Your task to perform on an android device: Open Google Maps Image 0: 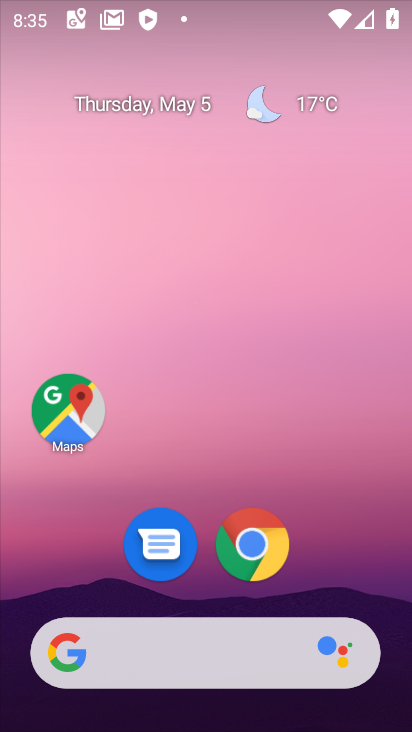
Step 0: drag from (395, 627) to (282, 66)
Your task to perform on an android device: Open Google Maps Image 1: 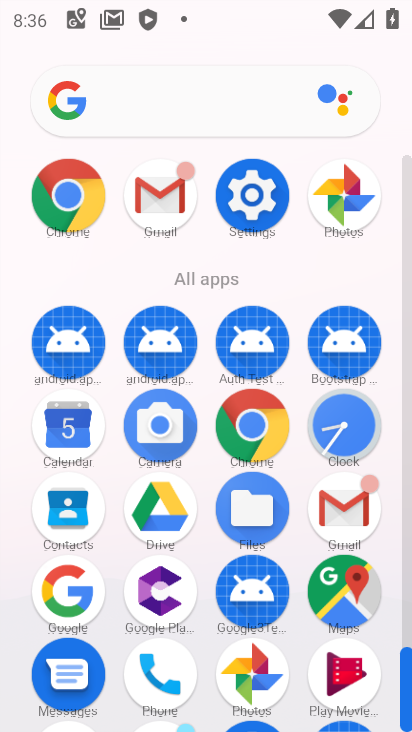
Step 1: click (333, 598)
Your task to perform on an android device: Open Google Maps Image 2: 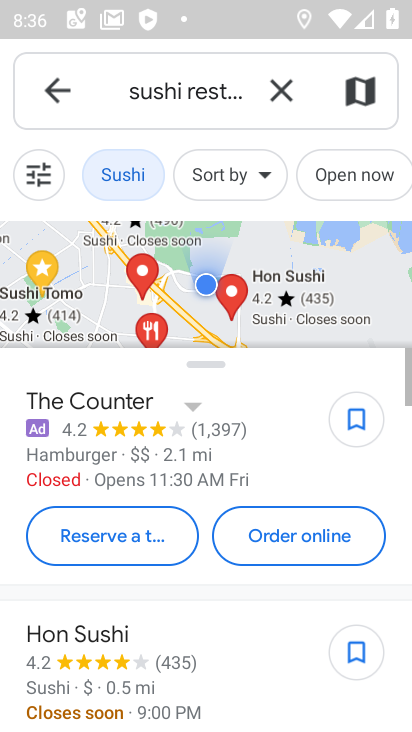
Step 2: click (280, 96)
Your task to perform on an android device: Open Google Maps Image 3: 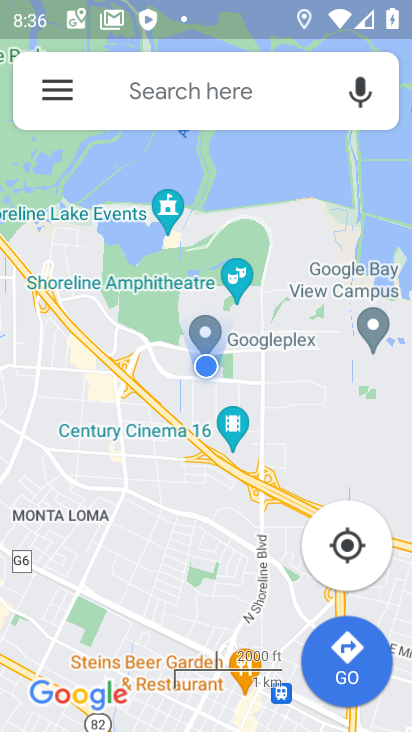
Step 3: task complete